Your task to perform on an android device: Add asus zenbook to the cart on amazon.com, then select checkout. Image 0: 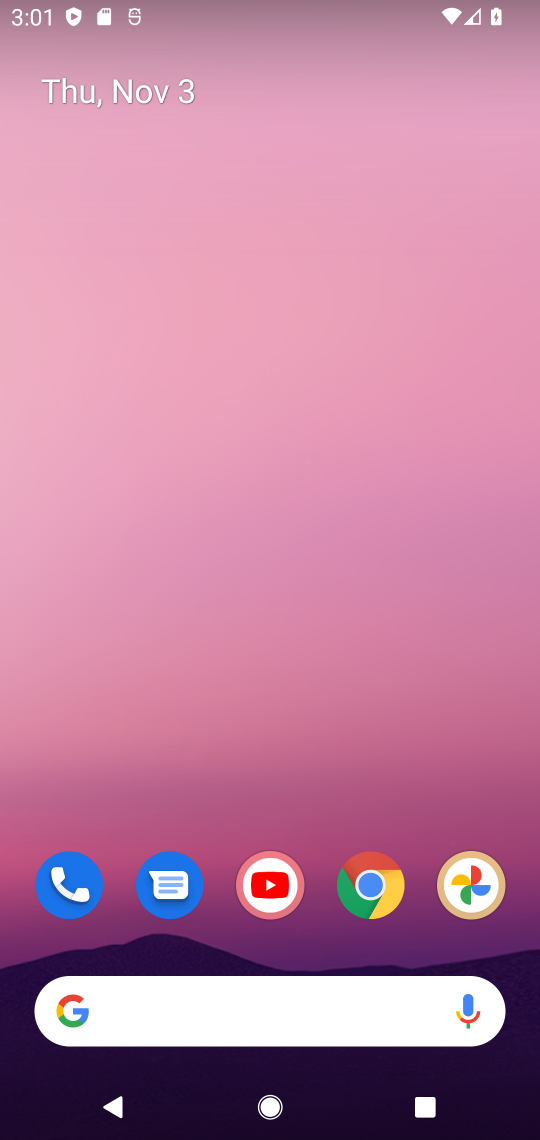
Step 0: click (376, 883)
Your task to perform on an android device: Add asus zenbook to the cart on amazon.com, then select checkout. Image 1: 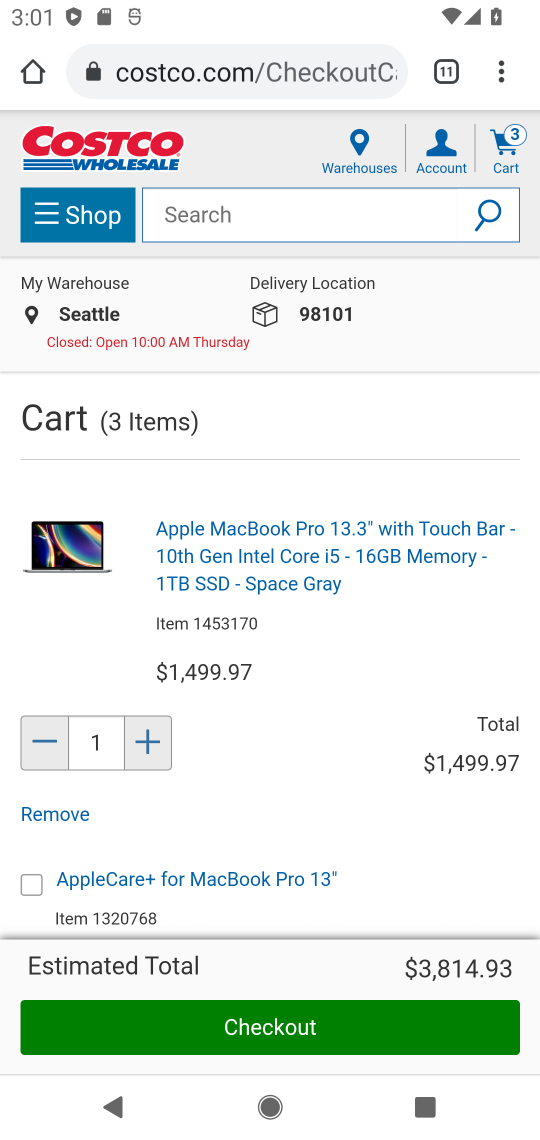
Step 1: click (499, 78)
Your task to perform on an android device: Add asus zenbook to the cart on amazon.com, then select checkout. Image 2: 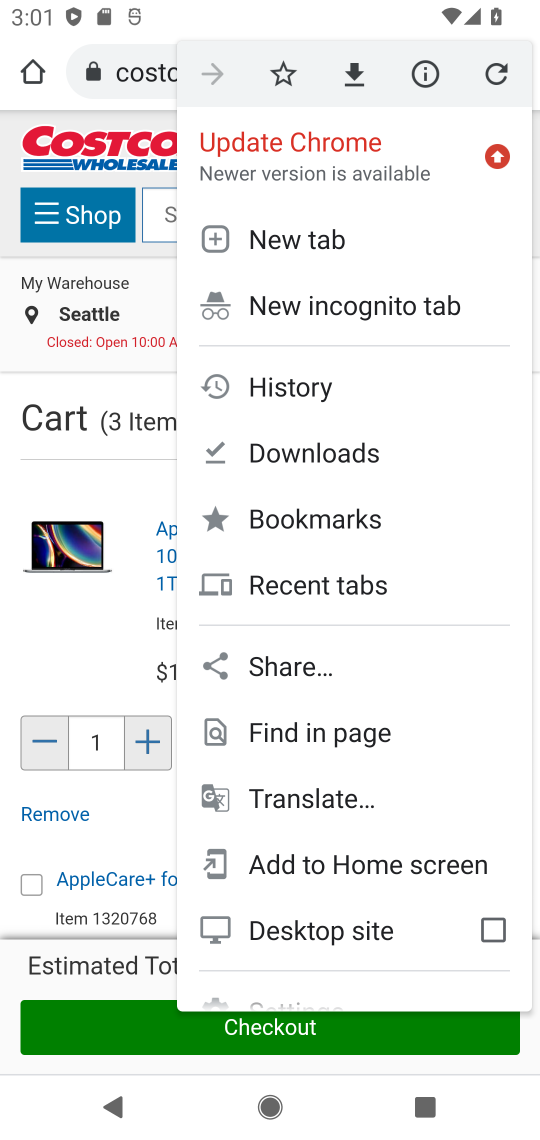
Step 2: click (297, 231)
Your task to perform on an android device: Add asus zenbook to the cart on amazon.com, then select checkout. Image 3: 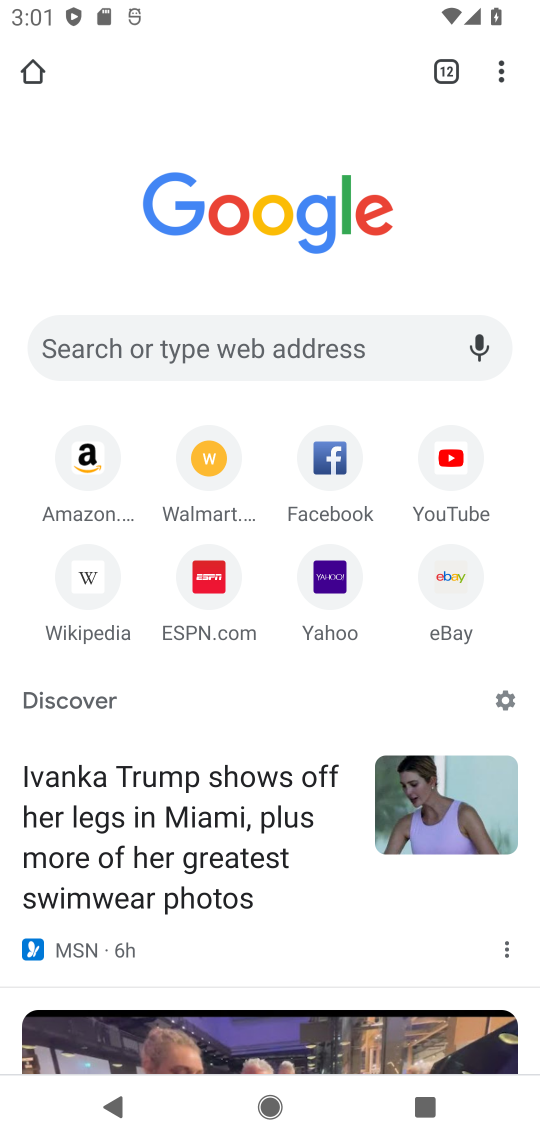
Step 3: click (76, 458)
Your task to perform on an android device: Add asus zenbook to the cart on amazon.com, then select checkout. Image 4: 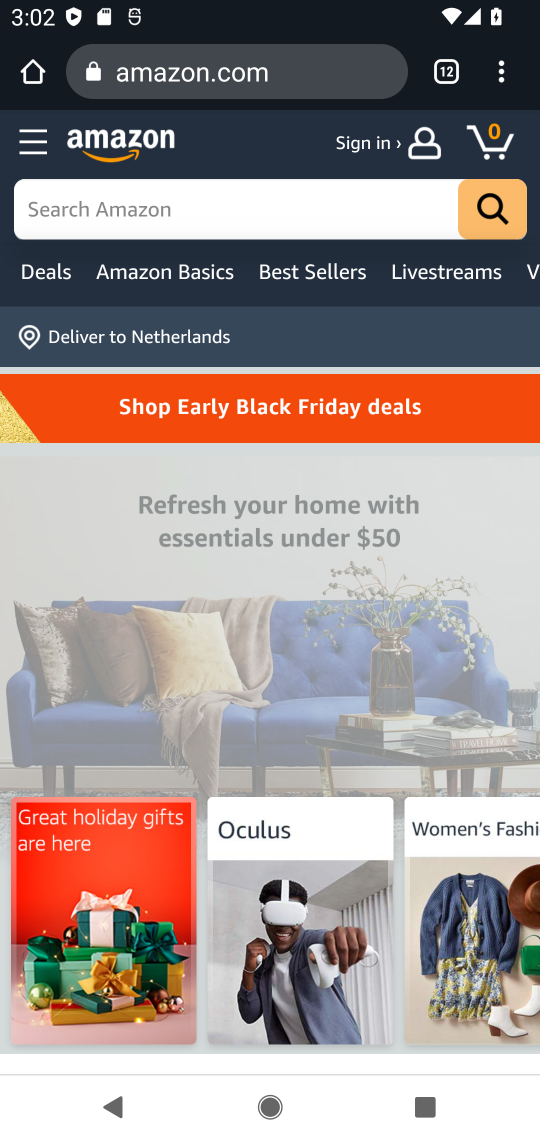
Step 4: click (216, 193)
Your task to perform on an android device: Add asus zenbook to the cart on amazon.com, then select checkout. Image 5: 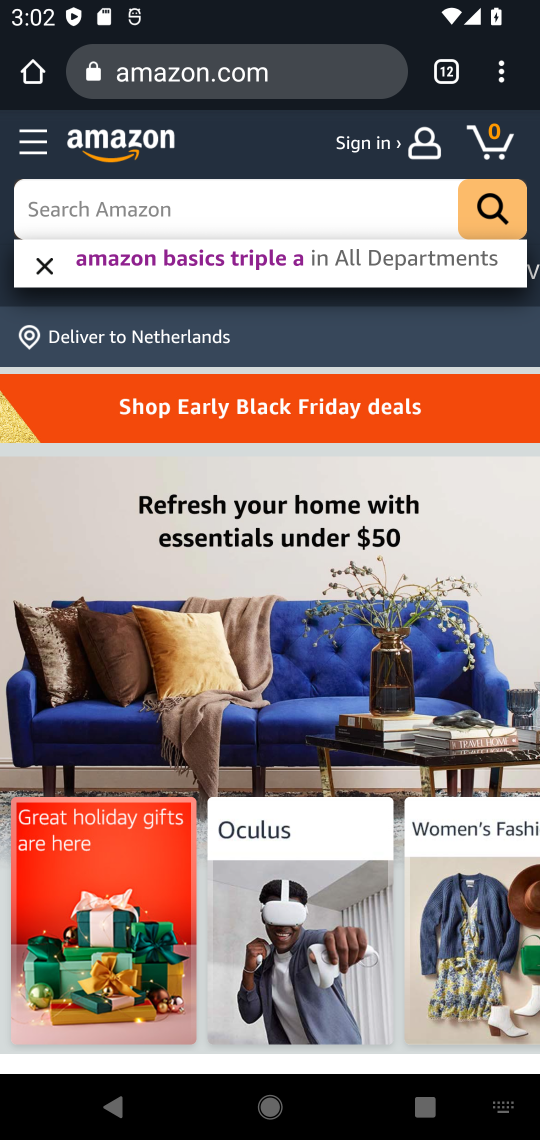
Step 5: type "asus zenbook"
Your task to perform on an android device: Add asus zenbook to the cart on amazon.com, then select checkout. Image 6: 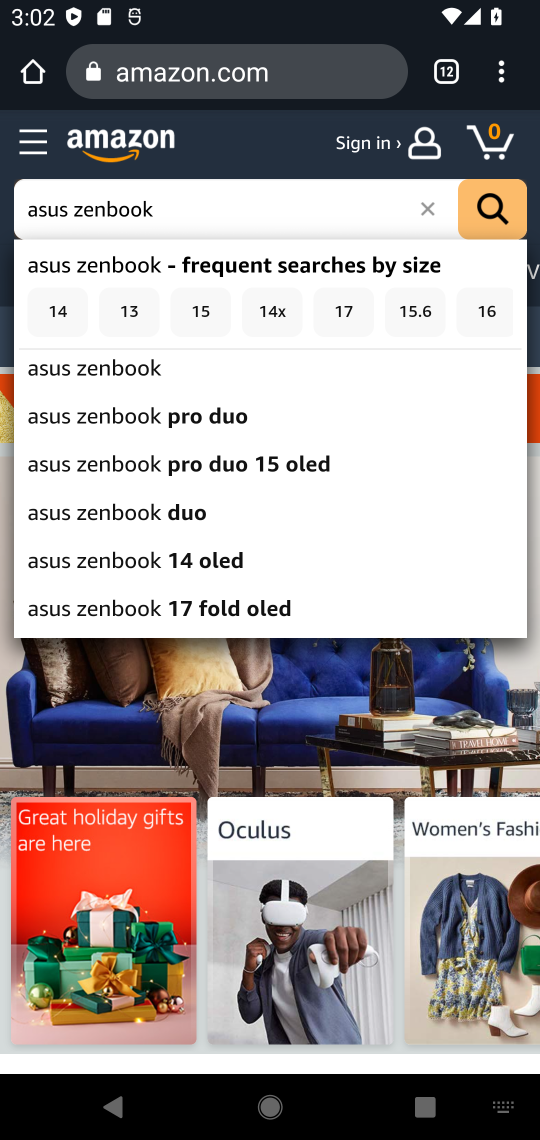
Step 6: click (107, 371)
Your task to perform on an android device: Add asus zenbook to the cart on amazon.com, then select checkout. Image 7: 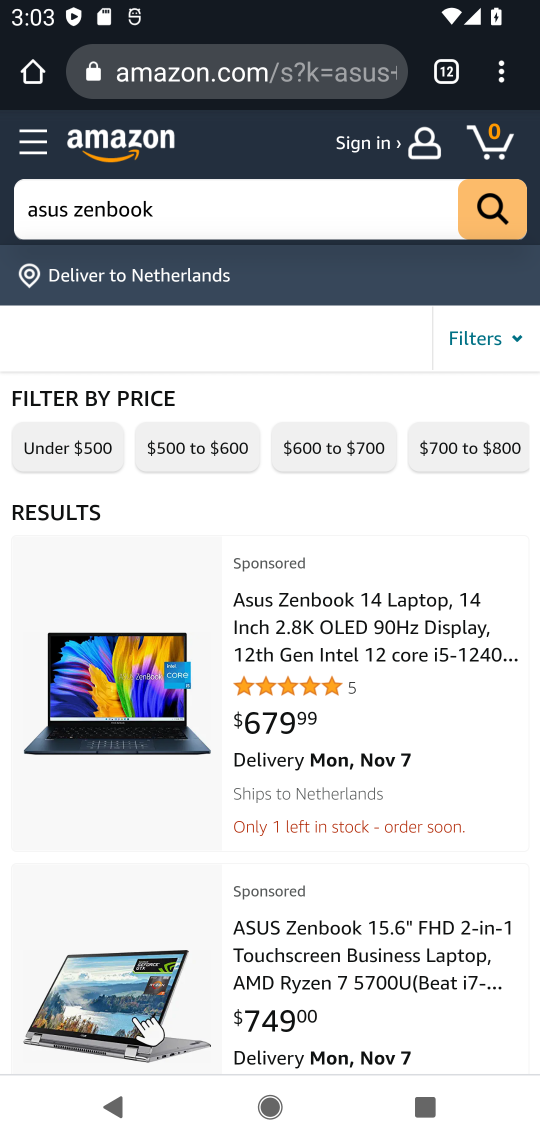
Step 7: click (323, 601)
Your task to perform on an android device: Add asus zenbook to the cart on amazon.com, then select checkout. Image 8: 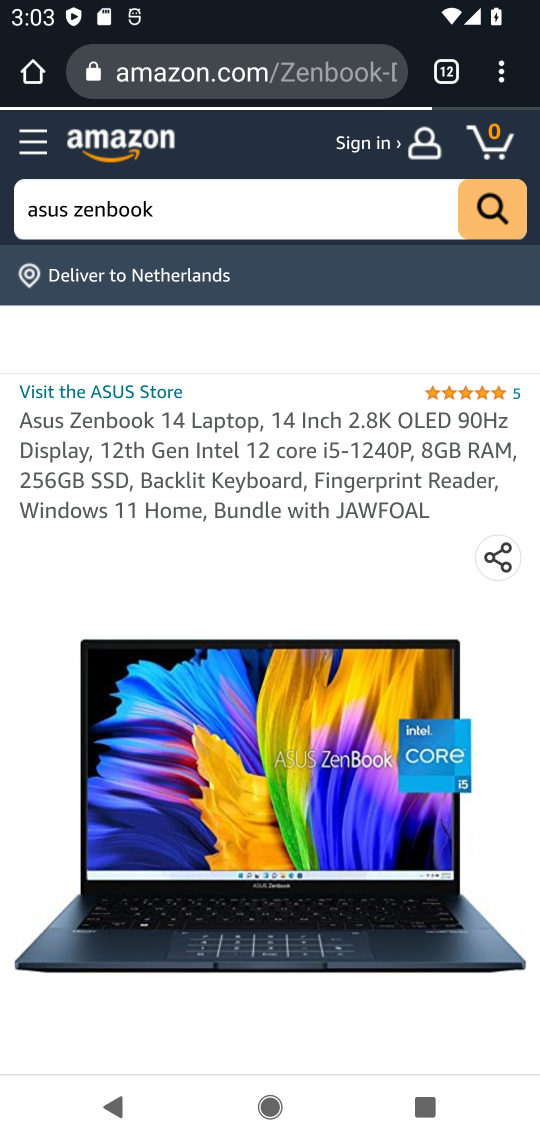
Step 8: drag from (344, 901) to (366, 490)
Your task to perform on an android device: Add asus zenbook to the cart on amazon.com, then select checkout. Image 9: 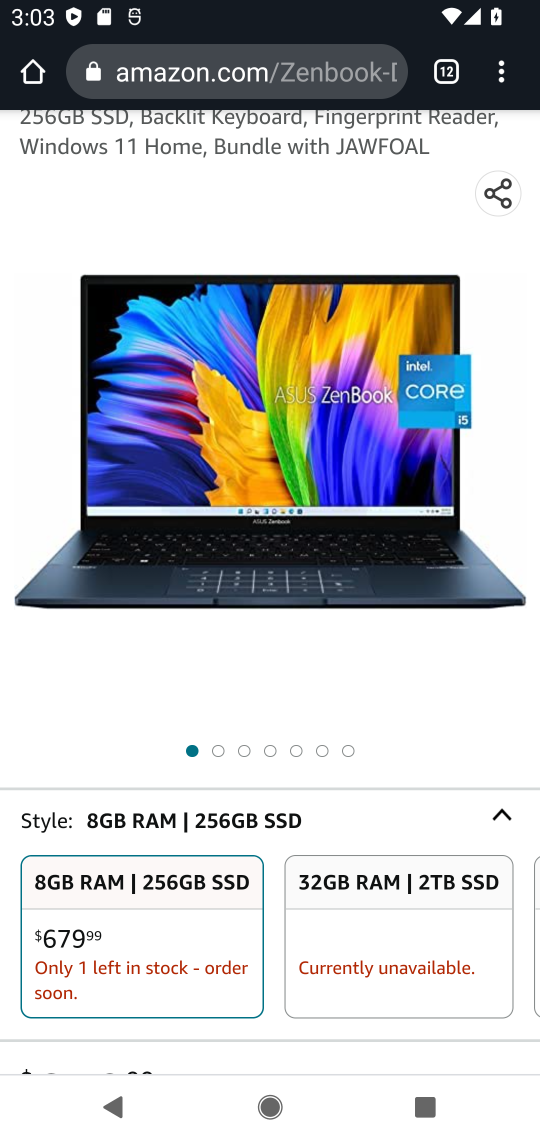
Step 9: drag from (319, 915) to (292, 453)
Your task to perform on an android device: Add asus zenbook to the cart on amazon.com, then select checkout. Image 10: 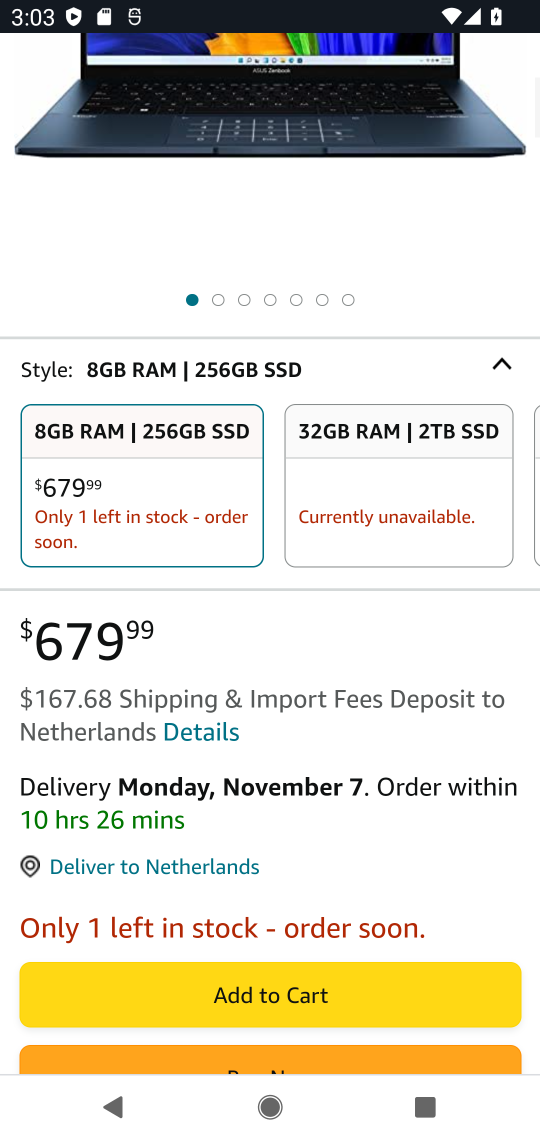
Step 10: drag from (245, 935) to (267, 630)
Your task to perform on an android device: Add asus zenbook to the cart on amazon.com, then select checkout. Image 11: 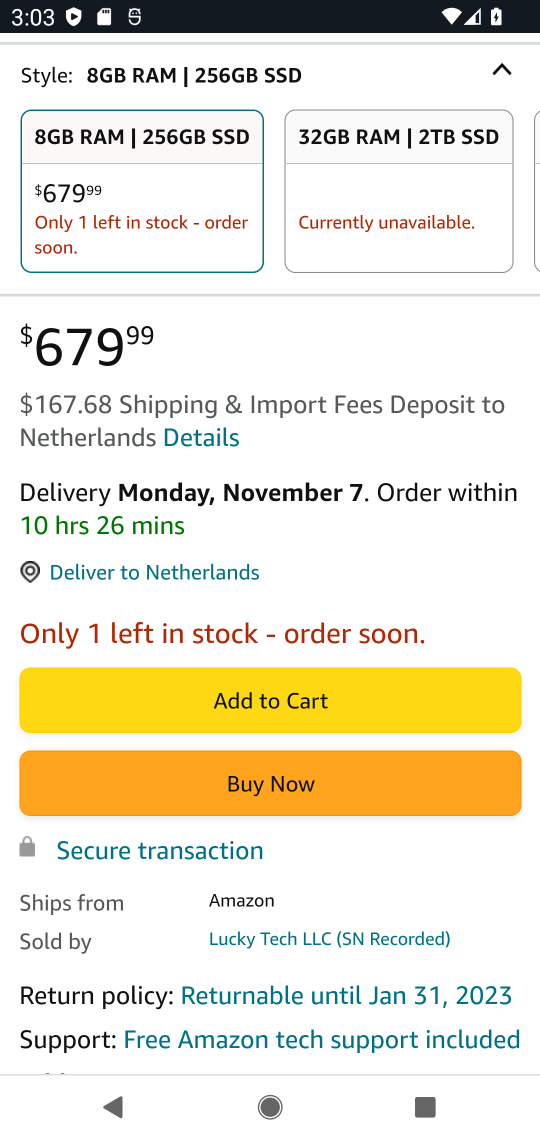
Step 11: click (269, 706)
Your task to perform on an android device: Add asus zenbook to the cart on amazon.com, then select checkout. Image 12: 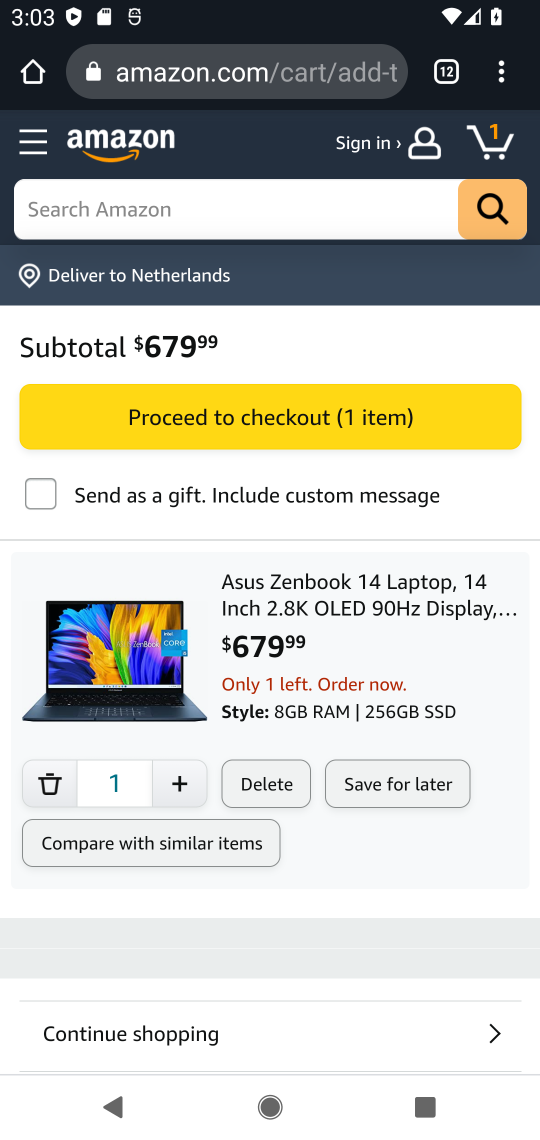
Step 12: drag from (277, 1008) to (265, 807)
Your task to perform on an android device: Add asus zenbook to the cart on amazon.com, then select checkout. Image 13: 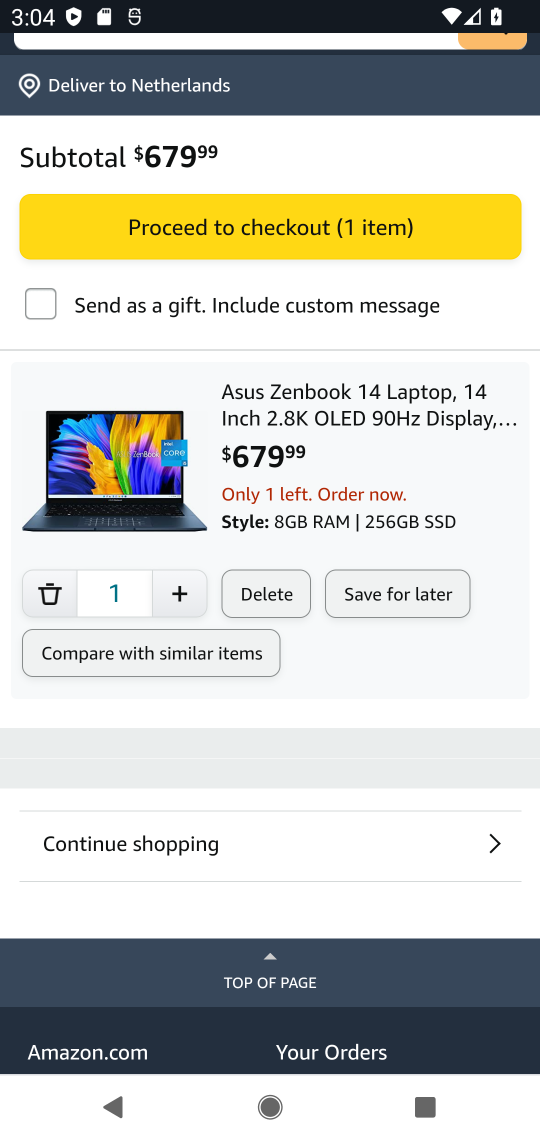
Step 13: drag from (395, 328) to (393, 749)
Your task to perform on an android device: Add asus zenbook to the cart on amazon.com, then select checkout. Image 14: 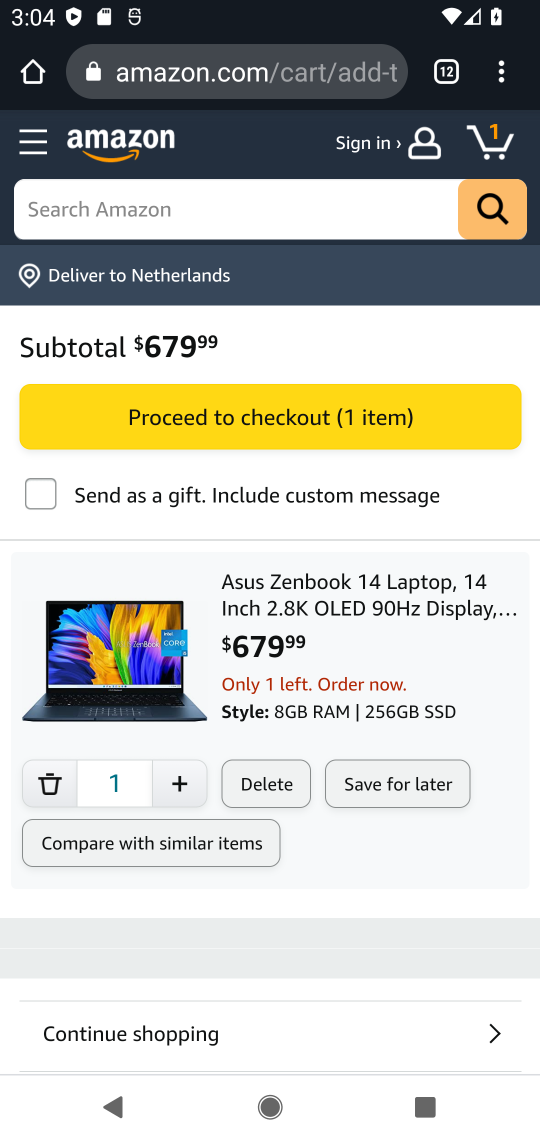
Step 14: click (485, 148)
Your task to perform on an android device: Add asus zenbook to the cart on amazon.com, then select checkout. Image 15: 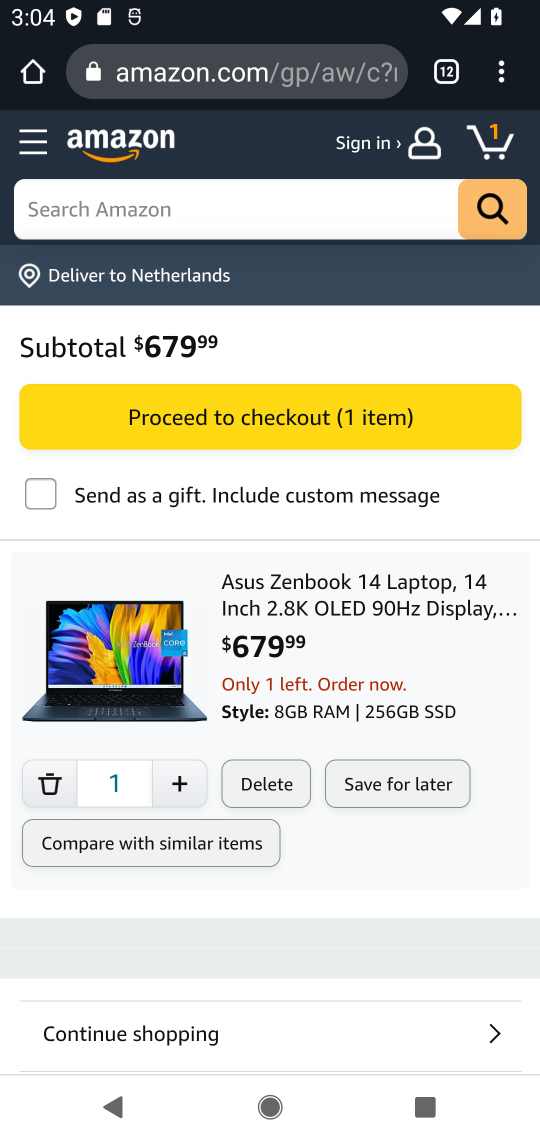
Step 15: task complete